Your task to perform on an android device: turn notification dots off Image 0: 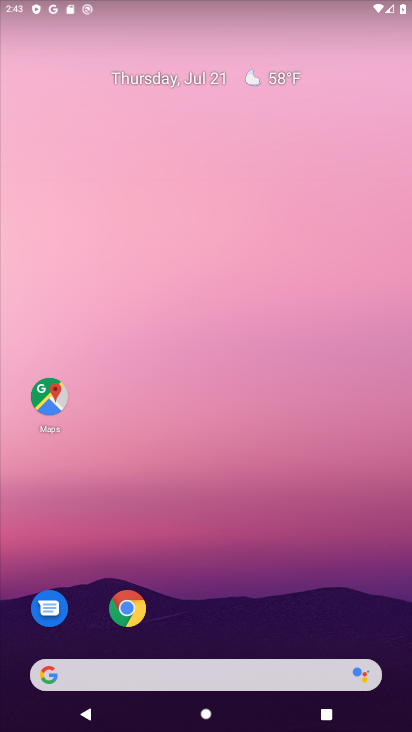
Step 0: press home button
Your task to perform on an android device: turn notification dots off Image 1: 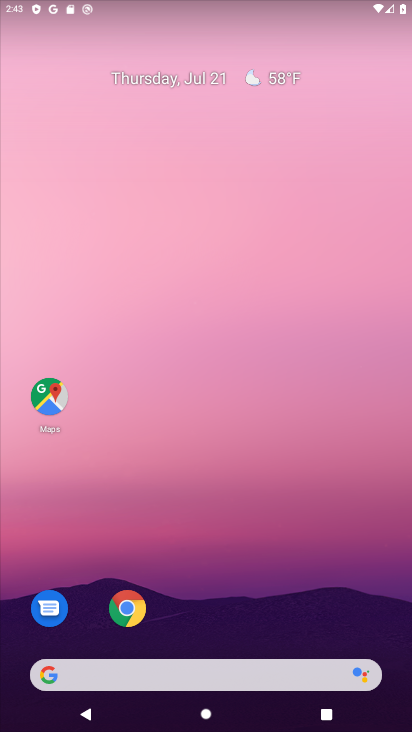
Step 1: drag from (211, 628) to (220, 54)
Your task to perform on an android device: turn notification dots off Image 2: 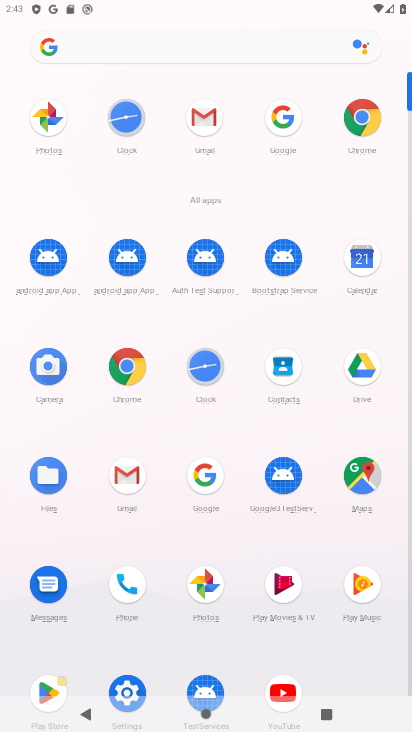
Step 2: click (123, 678)
Your task to perform on an android device: turn notification dots off Image 3: 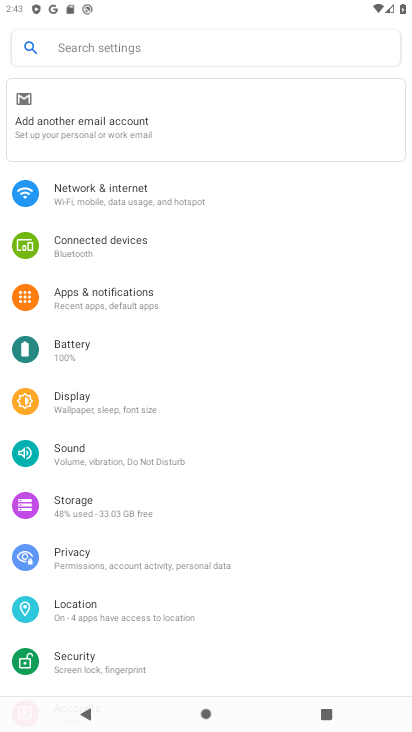
Step 3: click (168, 297)
Your task to perform on an android device: turn notification dots off Image 4: 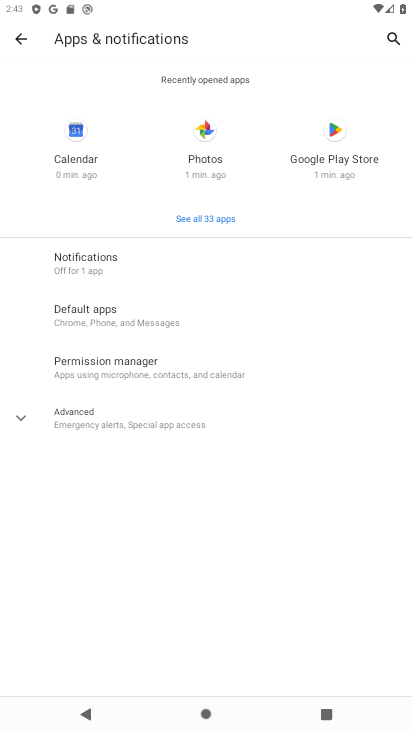
Step 4: click (135, 260)
Your task to perform on an android device: turn notification dots off Image 5: 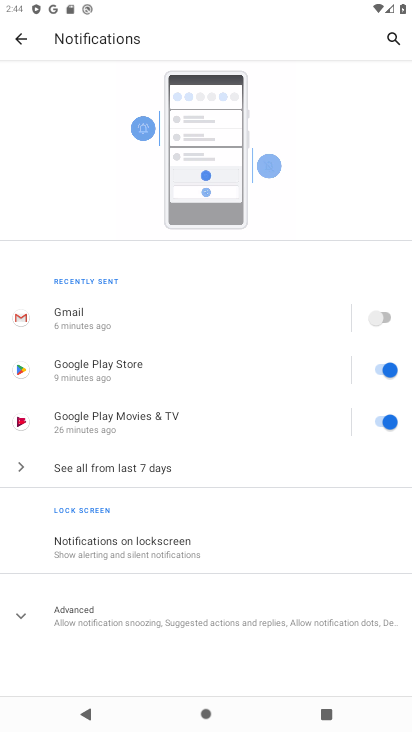
Step 5: click (19, 613)
Your task to perform on an android device: turn notification dots off Image 6: 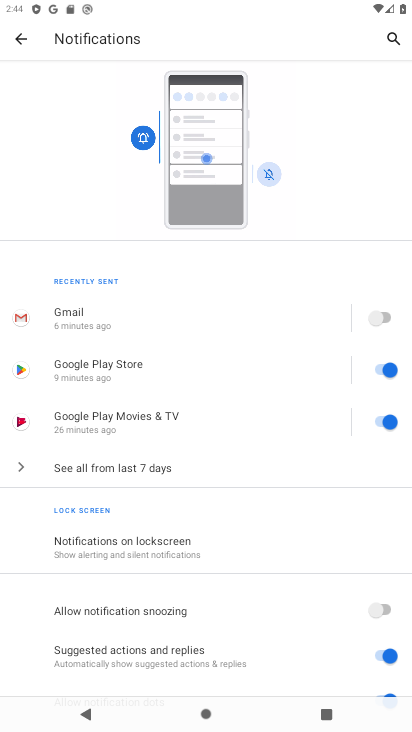
Step 6: drag from (253, 646) to (277, 130)
Your task to perform on an android device: turn notification dots off Image 7: 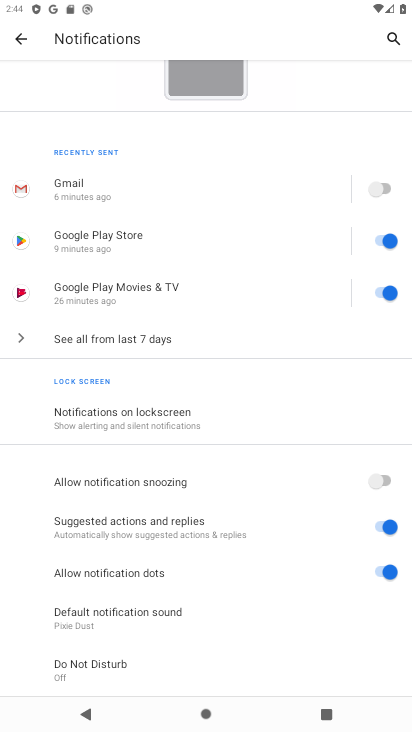
Step 7: click (375, 571)
Your task to perform on an android device: turn notification dots off Image 8: 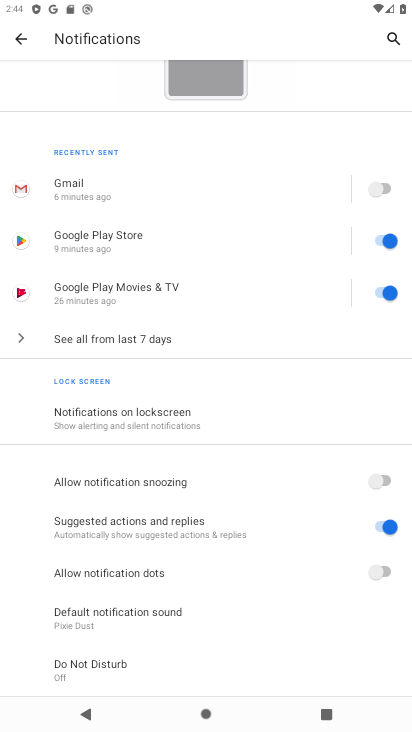
Step 8: task complete